Your task to perform on an android device: change text size in settings app Image 0: 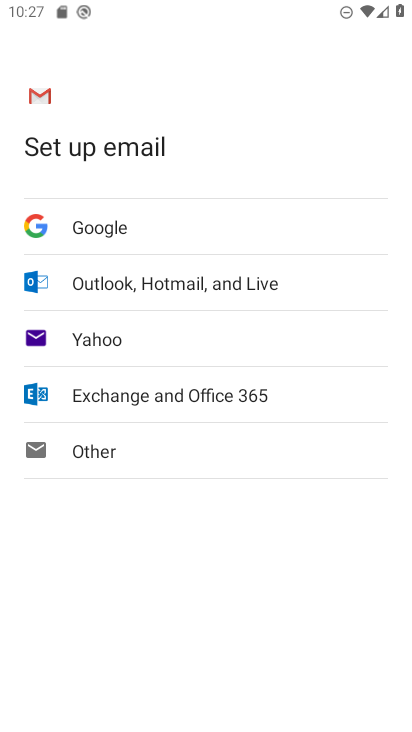
Step 0: press home button
Your task to perform on an android device: change text size in settings app Image 1: 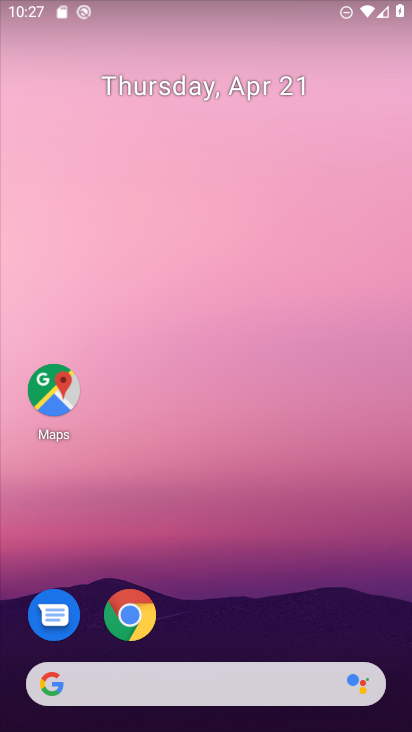
Step 1: drag from (202, 664) to (195, 159)
Your task to perform on an android device: change text size in settings app Image 2: 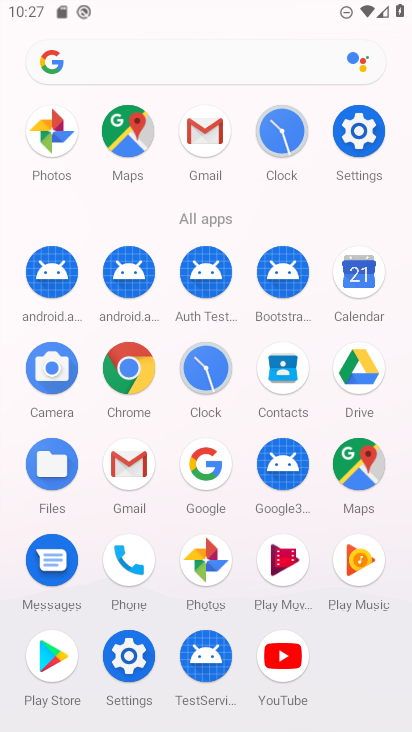
Step 2: click (355, 137)
Your task to perform on an android device: change text size in settings app Image 3: 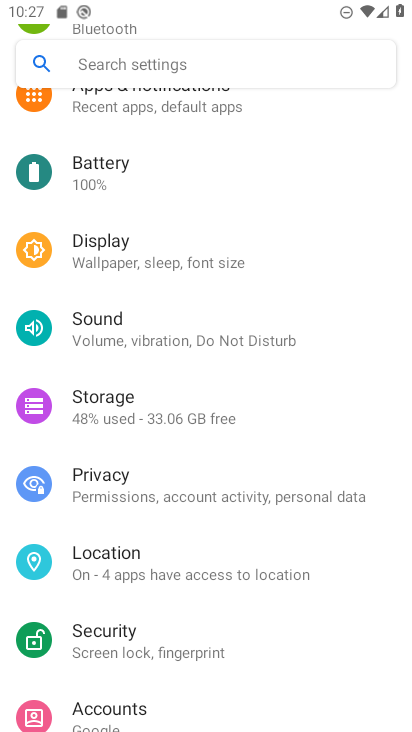
Step 3: click (141, 262)
Your task to perform on an android device: change text size in settings app Image 4: 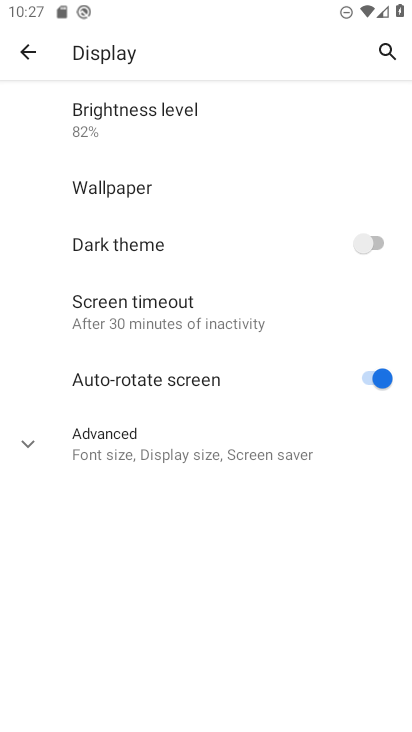
Step 4: click (105, 448)
Your task to perform on an android device: change text size in settings app Image 5: 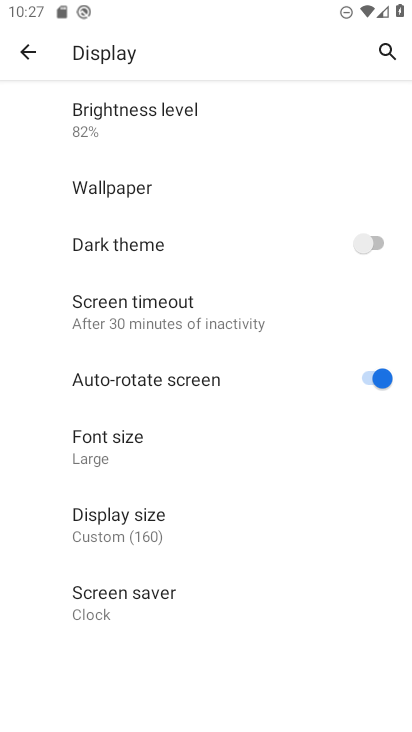
Step 5: click (102, 447)
Your task to perform on an android device: change text size in settings app Image 6: 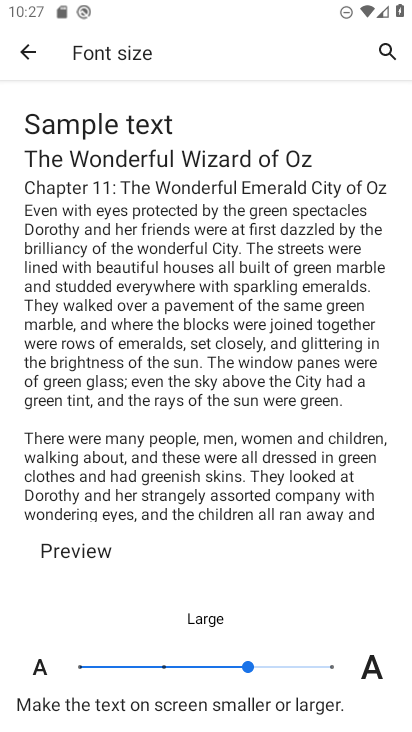
Step 6: click (162, 664)
Your task to perform on an android device: change text size in settings app Image 7: 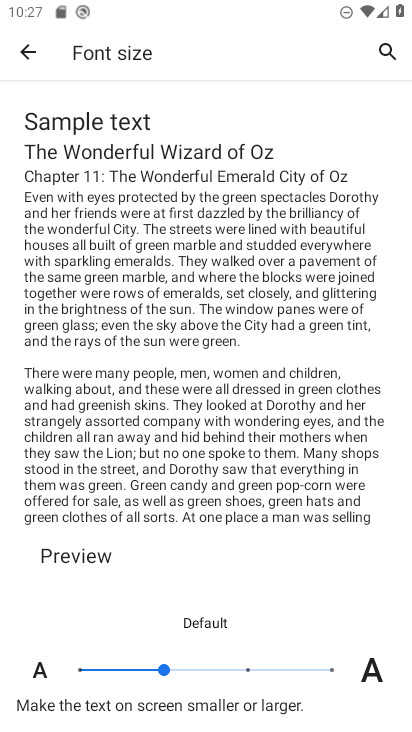
Step 7: task complete